Your task to perform on an android device: Open ESPN.com Image 0: 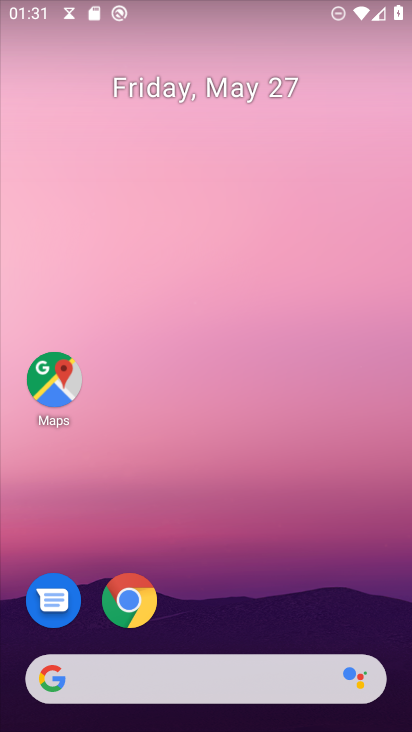
Step 0: click (137, 593)
Your task to perform on an android device: Open ESPN.com Image 1: 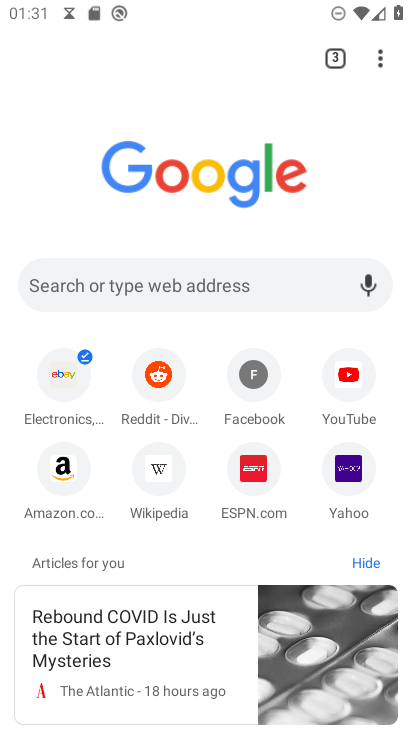
Step 1: click (337, 61)
Your task to perform on an android device: Open ESPN.com Image 2: 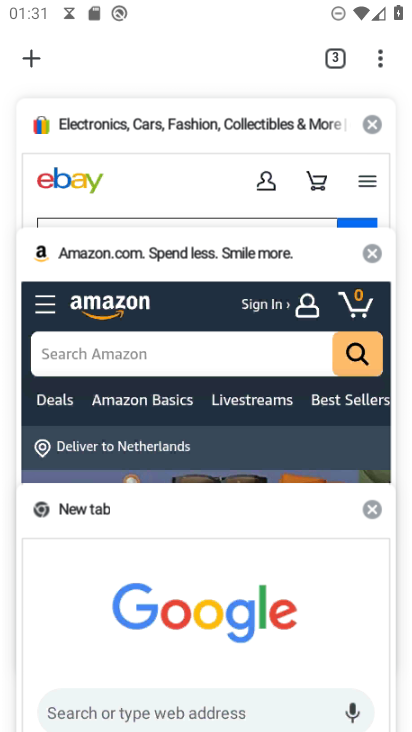
Step 2: click (210, 574)
Your task to perform on an android device: Open ESPN.com Image 3: 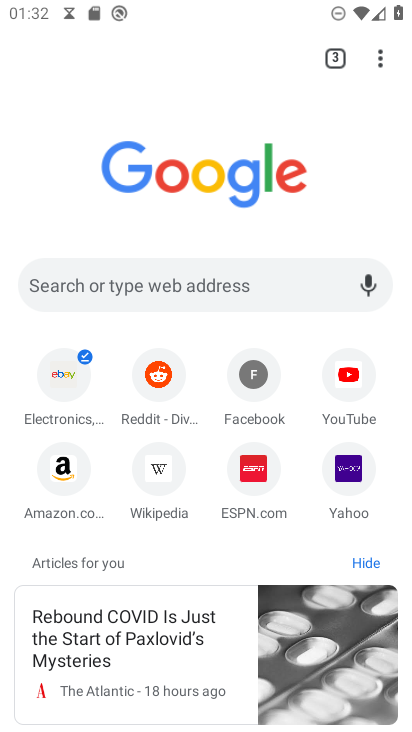
Step 3: click (265, 468)
Your task to perform on an android device: Open ESPN.com Image 4: 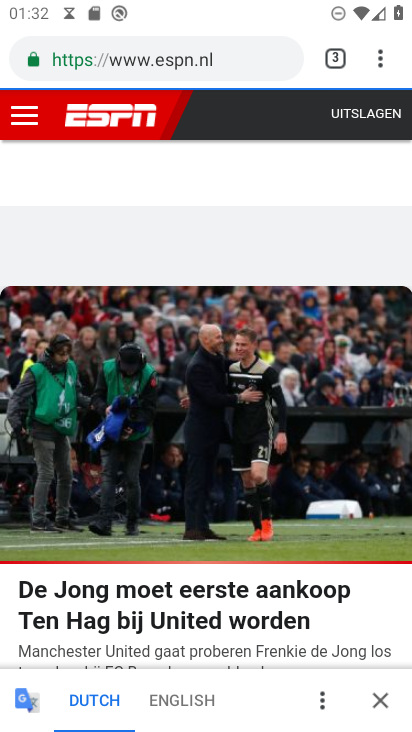
Step 4: task complete